Your task to perform on an android device: find snoozed emails in the gmail app Image 0: 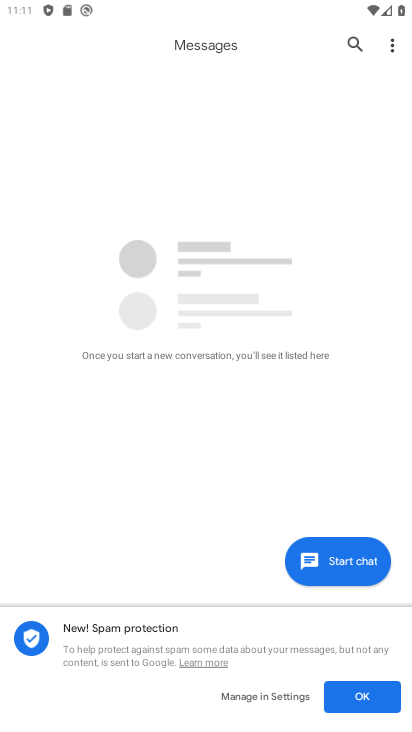
Step 0: press home button
Your task to perform on an android device: find snoozed emails in the gmail app Image 1: 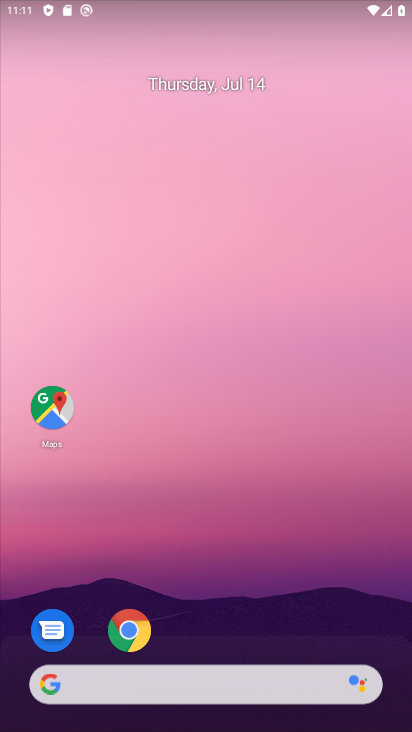
Step 1: drag from (271, 642) to (252, 196)
Your task to perform on an android device: find snoozed emails in the gmail app Image 2: 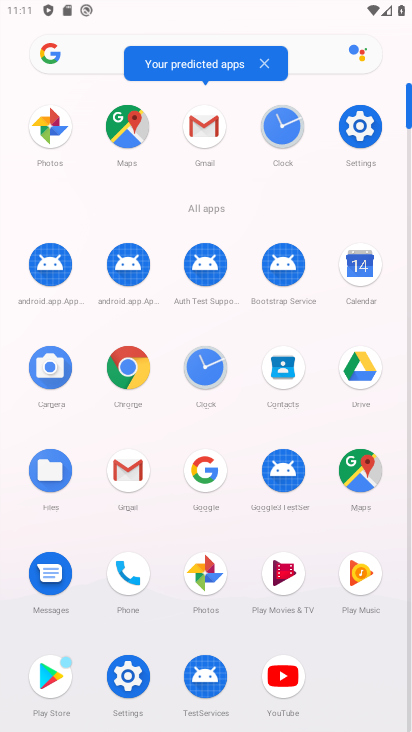
Step 2: click (220, 139)
Your task to perform on an android device: find snoozed emails in the gmail app Image 3: 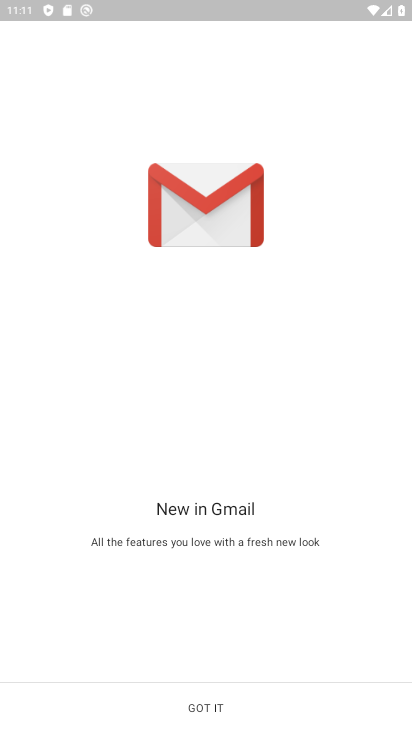
Step 3: click (213, 719)
Your task to perform on an android device: find snoozed emails in the gmail app Image 4: 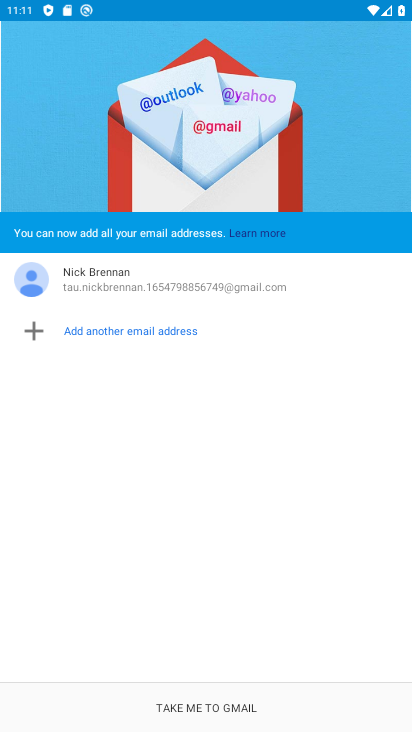
Step 4: click (209, 715)
Your task to perform on an android device: find snoozed emails in the gmail app Image 5: 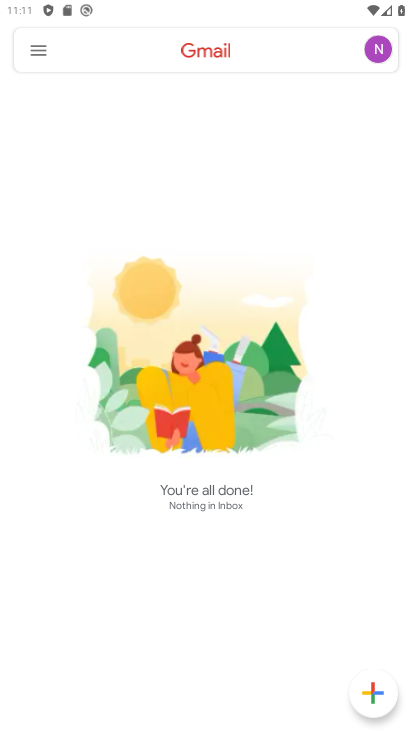
Step 5: click (43, 56)
Your task to perform on an android device: find snoozed emails in the gmail app Image 6: 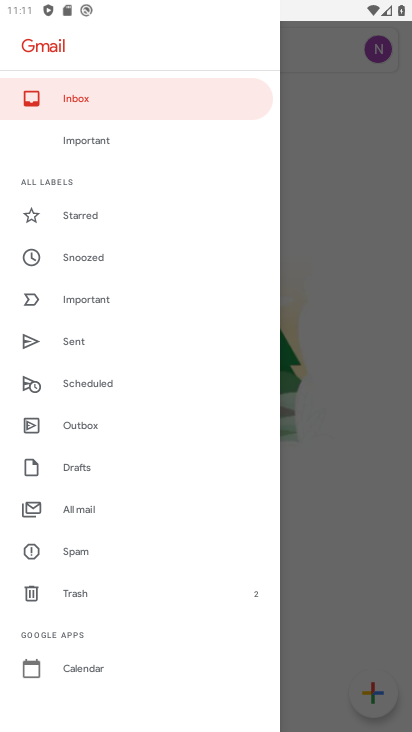
Step 6: click (107, 263)
Your task to perform on an android device: find snoozed emails in the gmail app Image 7: 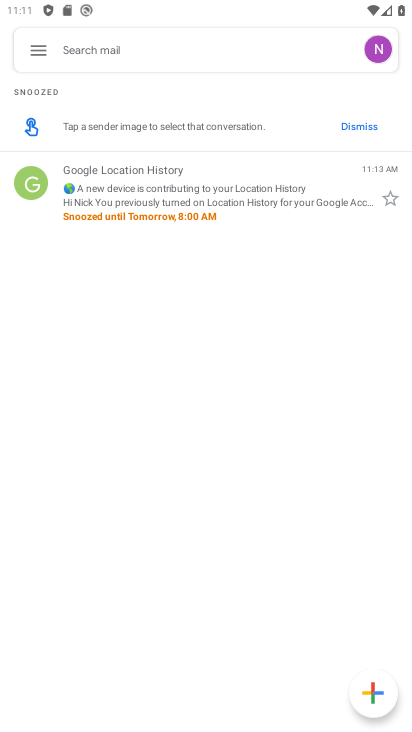
Step 7: task complete